Your task to perform on an android device: check the backup settings in the google photos Image 0: 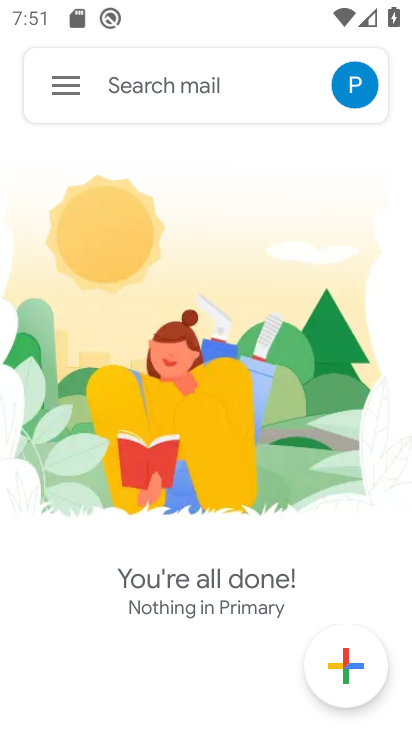
Step 0: press home button
Your task to perform on an android device: check the backup settings in the google photos Image 1: 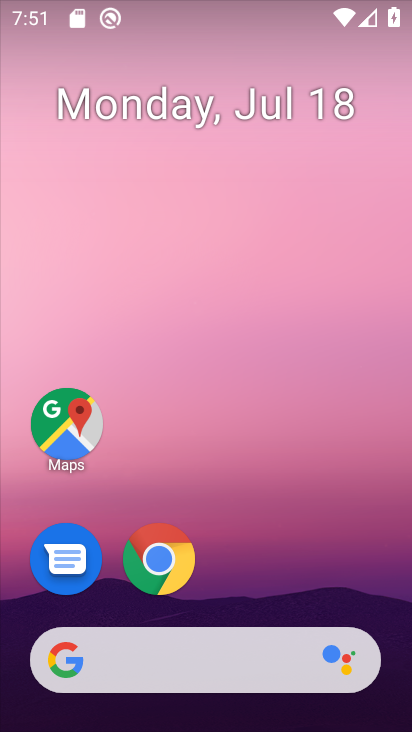
Step 1: drag from (342, 593) to (376, 78)
Your task to perform on an android device: check the backup settings in the google photos Image 2: 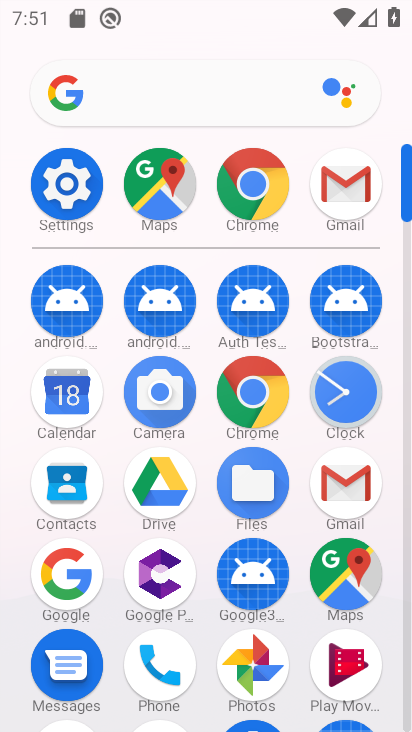
Step 2: click (251, 662)
Your task to perform on an android device: check the backup settings in the google photos Image 3: 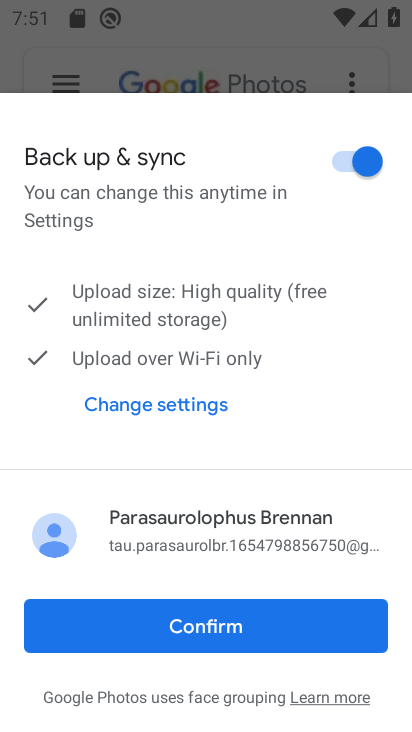
Step 3: click (248, 633)
Your task to perform on an android device: check the backup settings in the google photos Image 4: 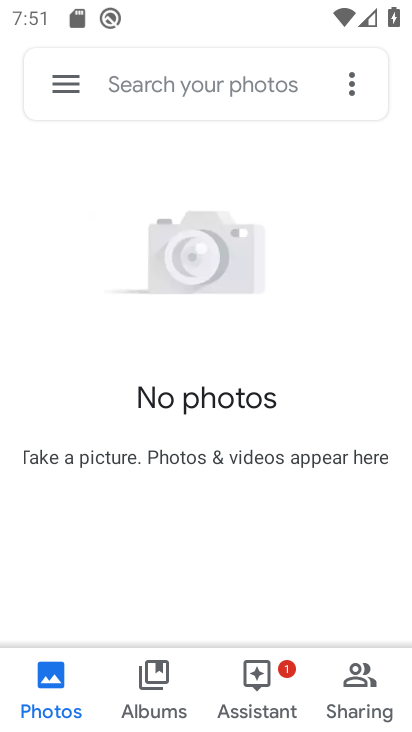
Step 4: click (72, 83)
Your task to perform on an android device: check the backup settings in the google photos Image 5: 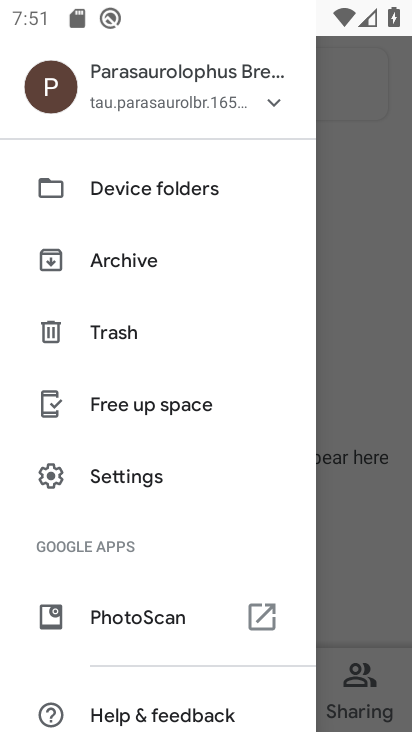
Step 5: click (131, 479)
Your task to perform on an android device: check the backup settings in the google photos Image 6: 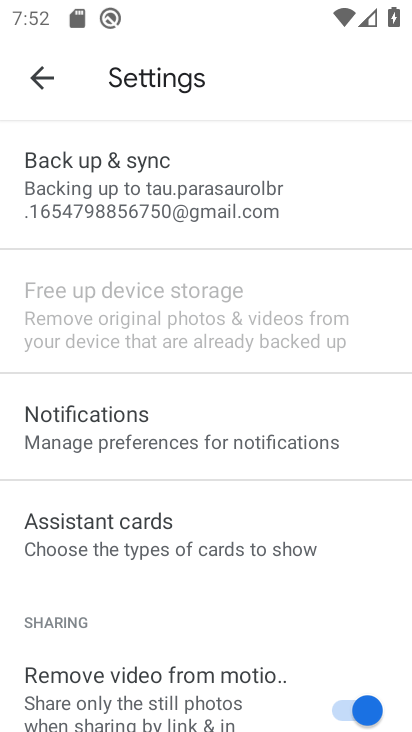
Step 6: click (137, 204)
Your task to perform on an android device: check the backup settings in the google photos Image 7: 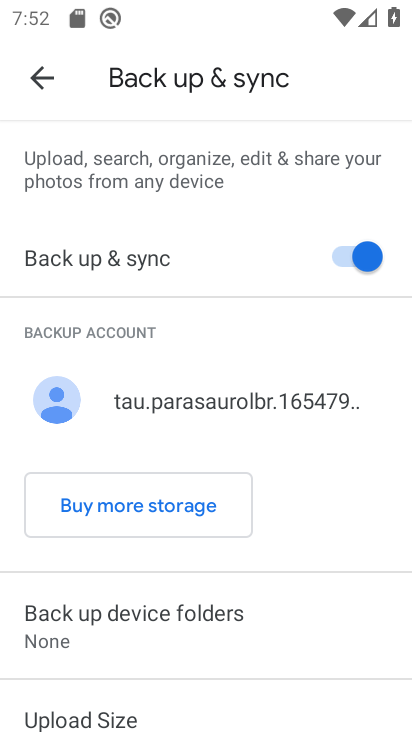
Step 7: task complete